Your task to perform on an android device: Go to Yahoo.com Image 0: 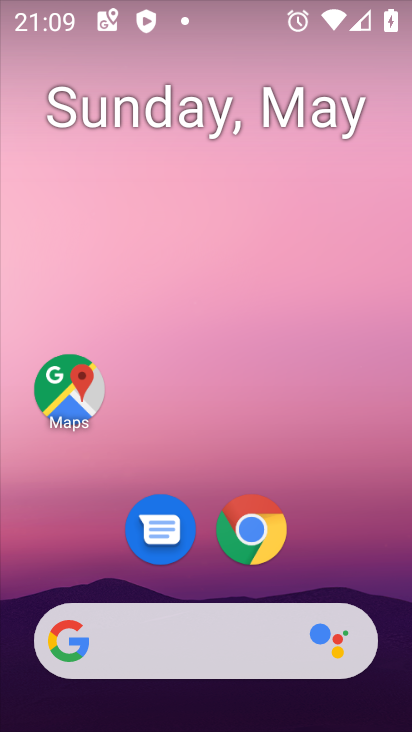
Step 0: click (245, 538)
Your task to perform on an android device: Go to Yahoo.com Image 1: 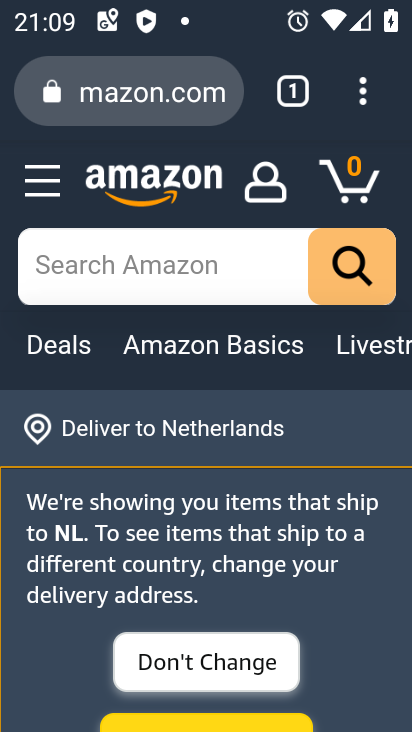
Step 1: click (111, 101)
Your task to perform on an android device: Go to Yahoo.com Image 2: 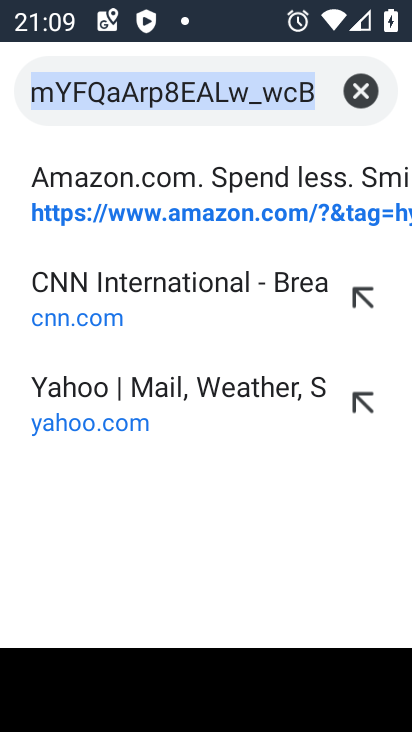
Step 2: click (53, 427)
Your task to perform on an android device: Go to Yahoo.com Image 3: 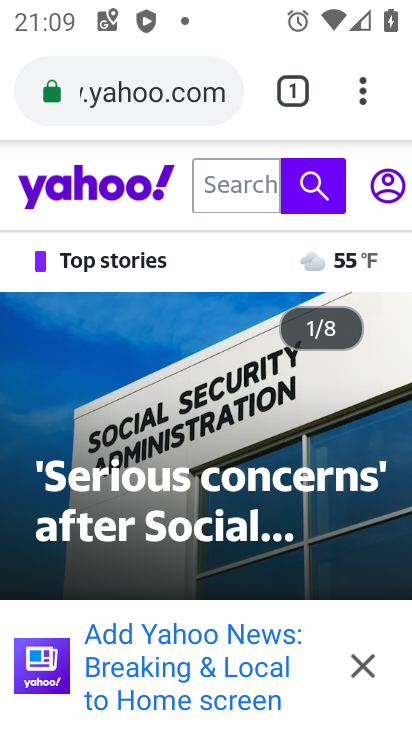
Step 3: task complete